Your task to perform on an android device: open wifi settings Image 0: 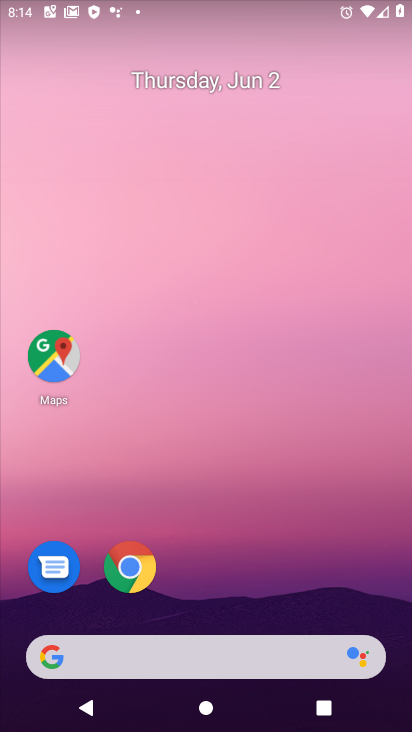
Step 0: drag from (284, 564) to (240, 68)
Your task to perform on an android device: open wifi settings Image 1: 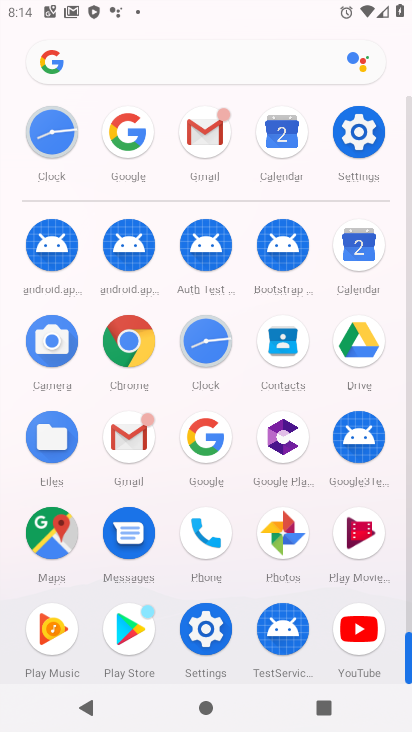
Step 1: click (359, 133)
Your task to perform on an android device: open wifi settings Image 2: 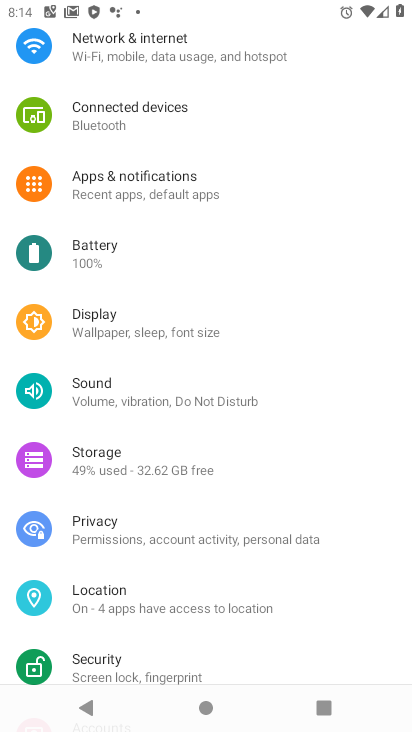
Step 2: click (172, 57)
Your task to perform on an android device: open wifi settings Image 3: 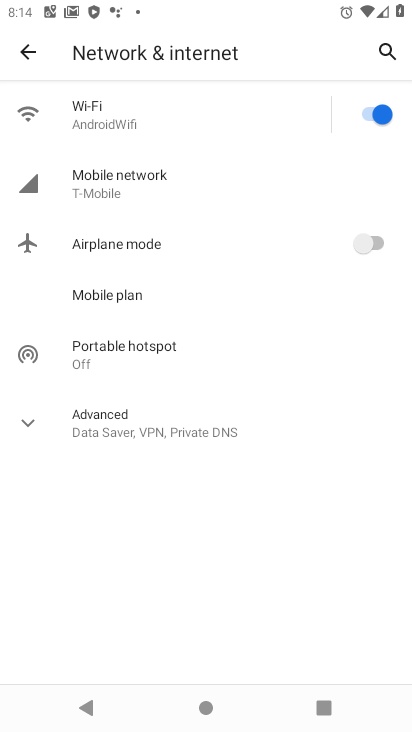
Step 3: click (106, 125)
Your task to perform on an android device: open wifi settings Image 4: 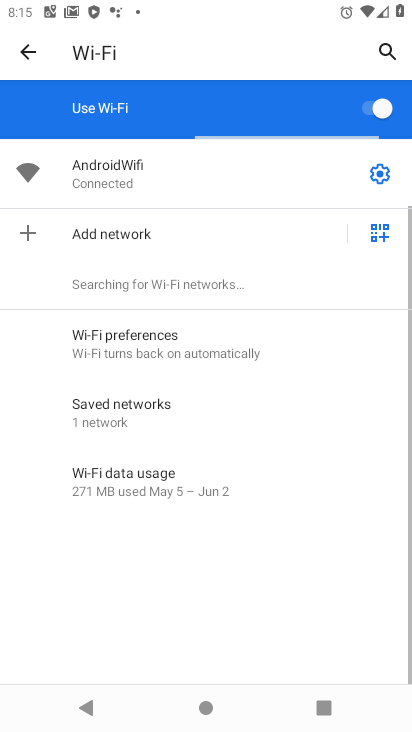
Step 4: click (374, 174)
Your task to perform on an android device: open wifi settings Image 5: 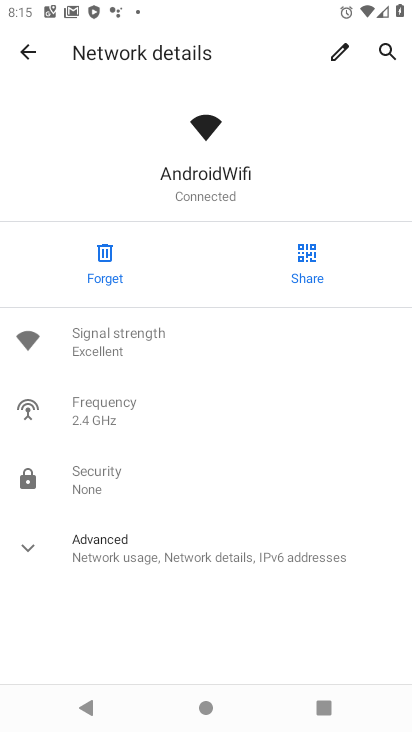
Step 5: task complete